Your task to perform on an android device: Go to display settings Image 0: 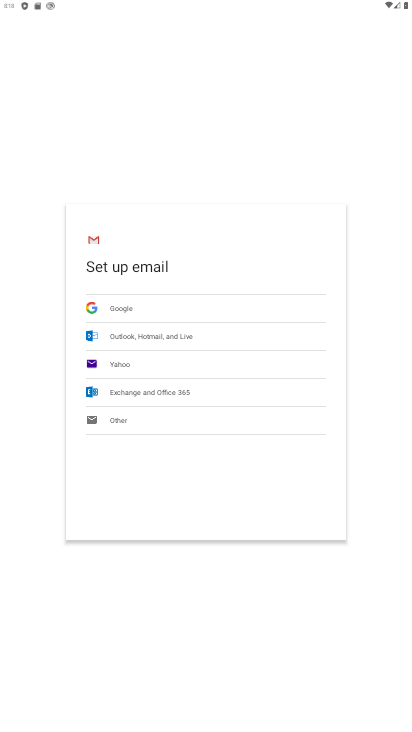
Step 0: press home button
Your task to perform on an android device: Go to display settings Image 1: 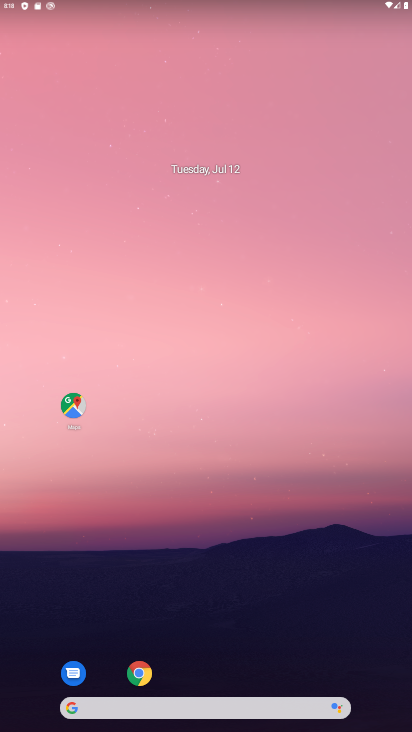
Step 1: drag from (257, 659) to (210, 120)
Your task to perform on an android device: Go to display settings Image 2: 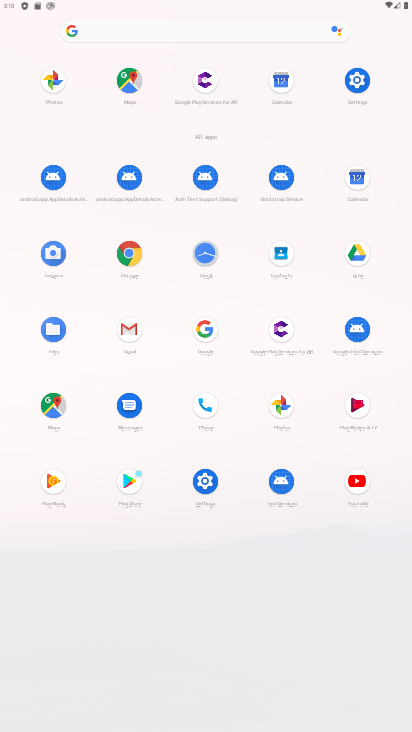
Step 2: click (197, 476)
Your task to perform on an android device: Go to display settings Image 3: 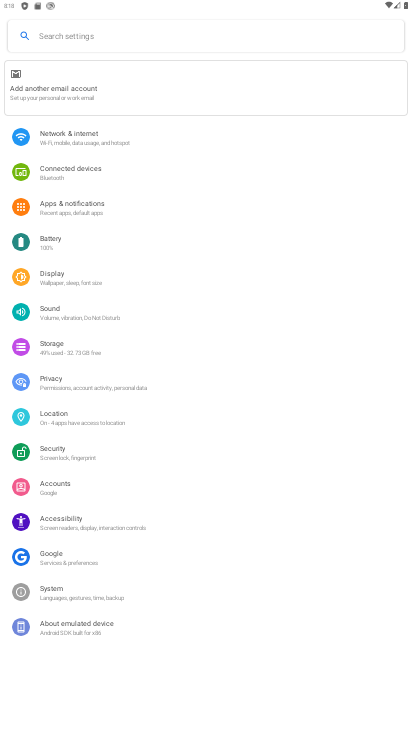
Step 3: click (35, 274)
Your task to perform on an android device: Go to display settings Image 4: 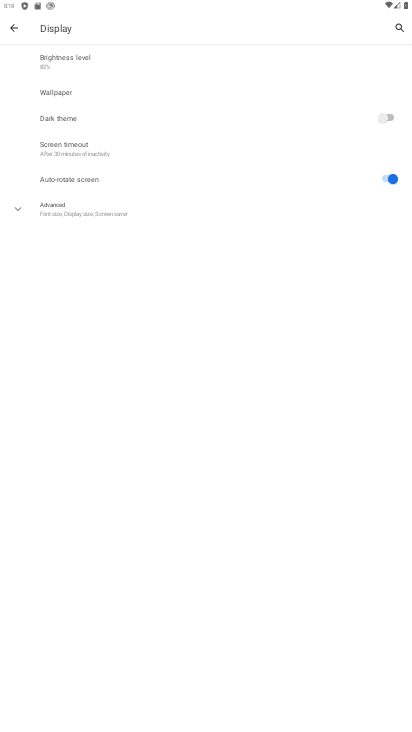
Step 4: task complete